Your task to perform on an android device: Open Youtube and go to "Your channel" Image 0: 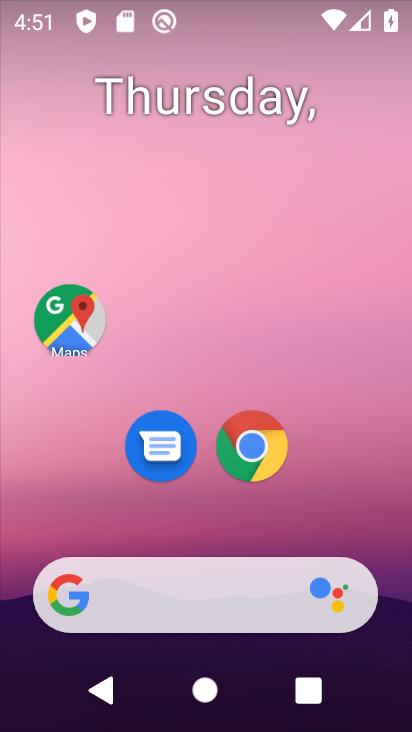
Step 0: drag from (87, 528) to (183, 108)
Your task to perform on an android device: Open Youtube and go to "Your channel" Image 1: 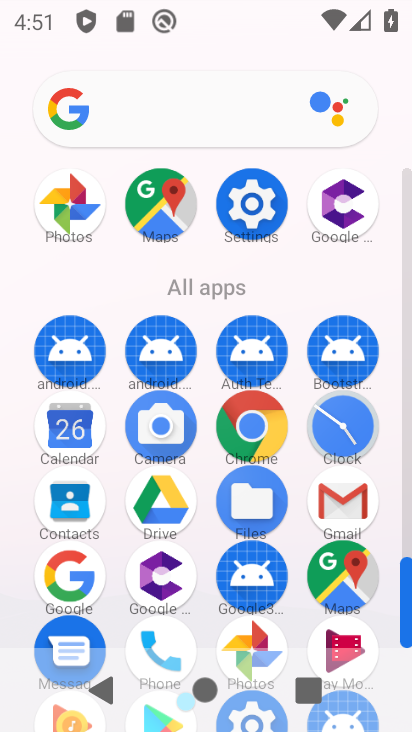
Step 1: drag from (193, 632) to (318, 225)
Your task to perform on an android device: Open Youtube and go to "Your channel" Image 2: 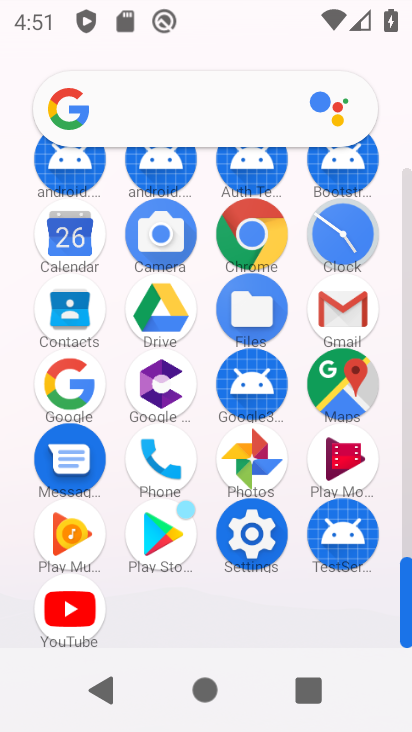
Step 2: click (79, 619)
Your task to perform on an android device: Open Youtube and go to "Your channel" Image 3: 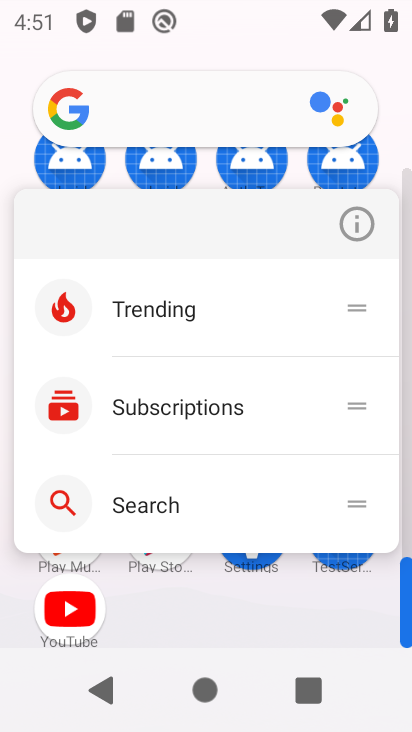
Step 3: click (76, 650)
Your task to perform on an android device: Open Youtube and go to "Your channel" Image 4: 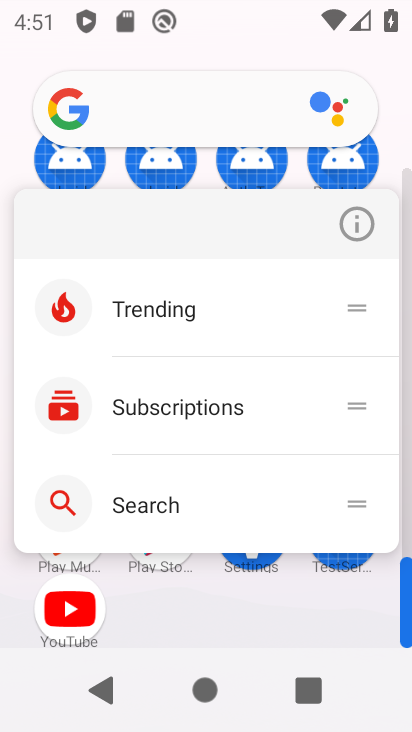
Step 4: click (91, 605)
Your task to perform on an android device: Open Youtube and go to "Your channel" Image 5: 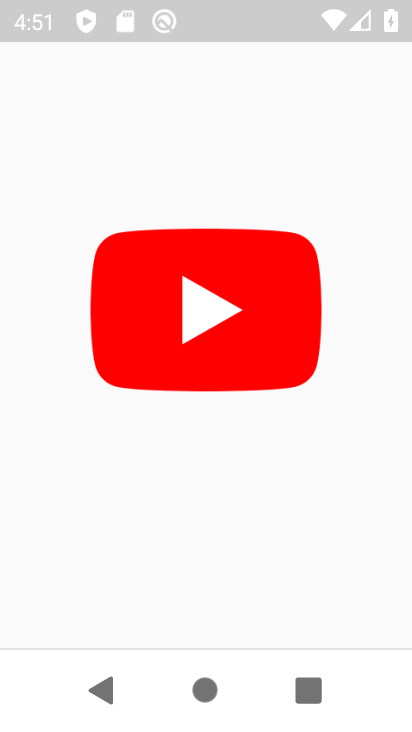
Step 5: click (91, 605)
Your task to perform on an android device: Open Youtube and go to "Your channel" Image 6: 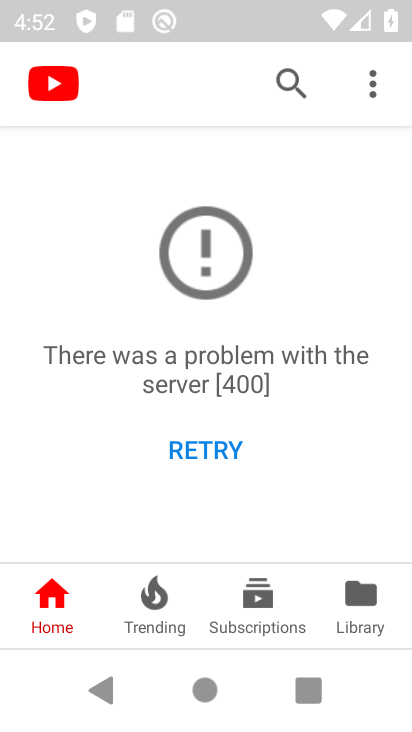
Step 6: click (386, 615)
Your task to perform on an android device: Open Youtube and go to "Your channel" Image 7: 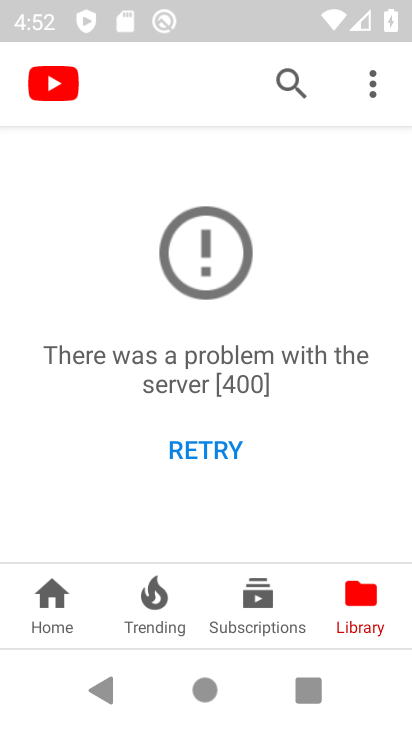
Step 7: click (385, 76)
Your task to perform on an android device: Open Youtube and go to "Your channel" Image 8: 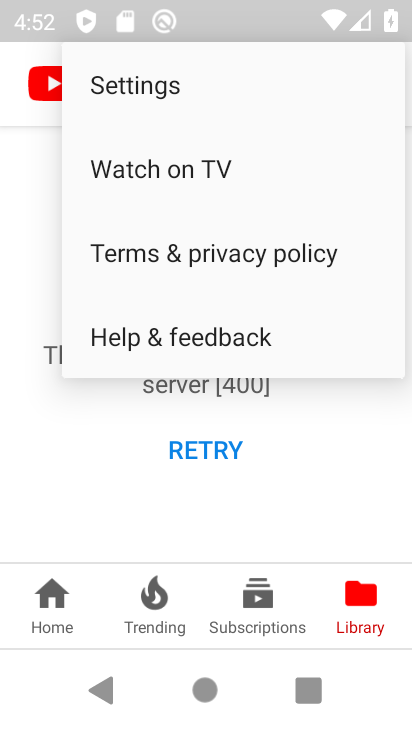
Step 8: task complete